Your task to perform on an android device: Show me recent news Image 0: 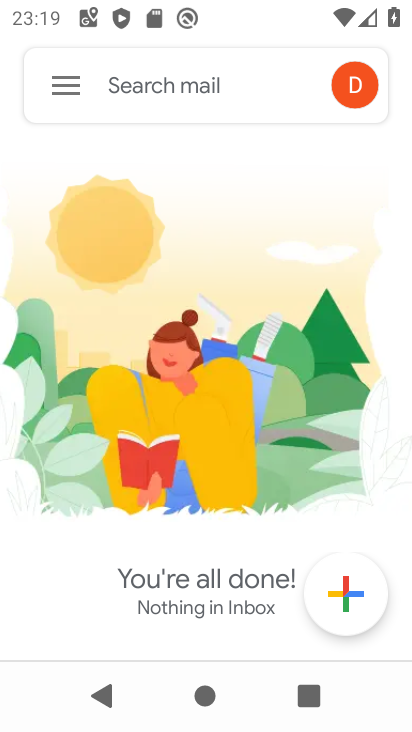
Step 0: press home button
Your task to perform on an android device: Show me recent news Image 1: 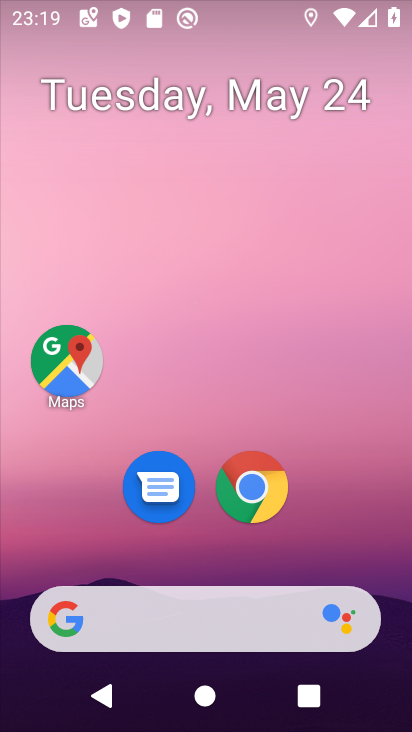
Step 1: click (160, 617)
Your task to perform on an android device: Show me recent news Image 2: 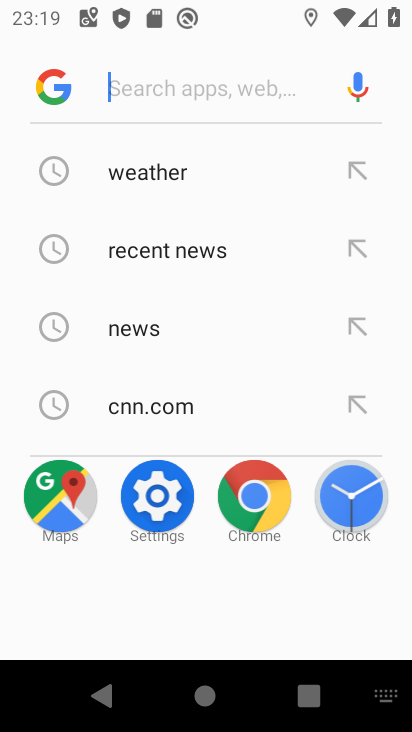
Step 2: click (159, 254)
Your task to perform on an android device: Show me recent news Image 3: 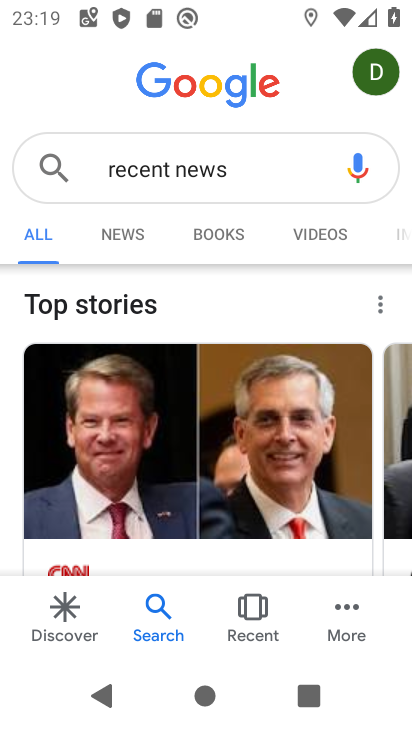
Step 3: task complete